Your task to perform on an android device: Open Google Maps Image 0: 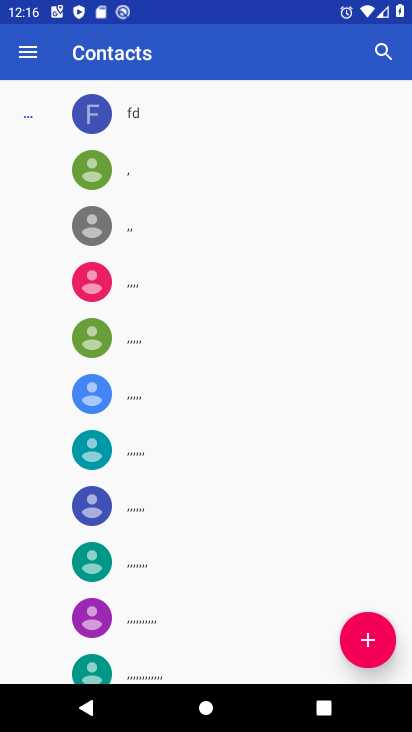
Step 0: press home button
Your task to perform on an android device: Open Google Maps Image 1: 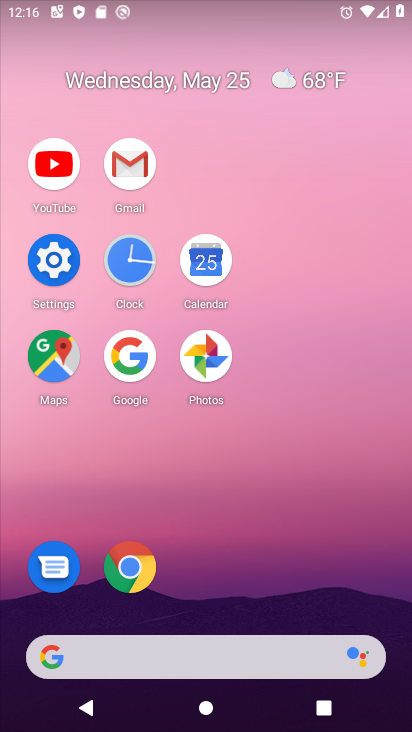
Step 1: click (67, 340)
Your task to perform on an android device: Open Google Maps Image 2: 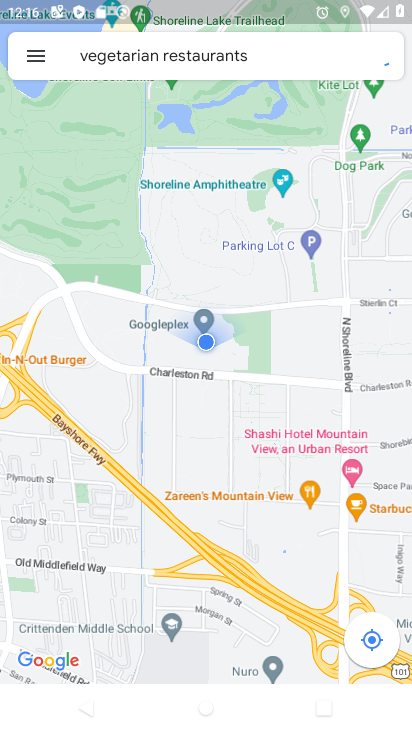
Step 2: task complete